Your task to perform on an android device: What is the capital of England? Image 0: 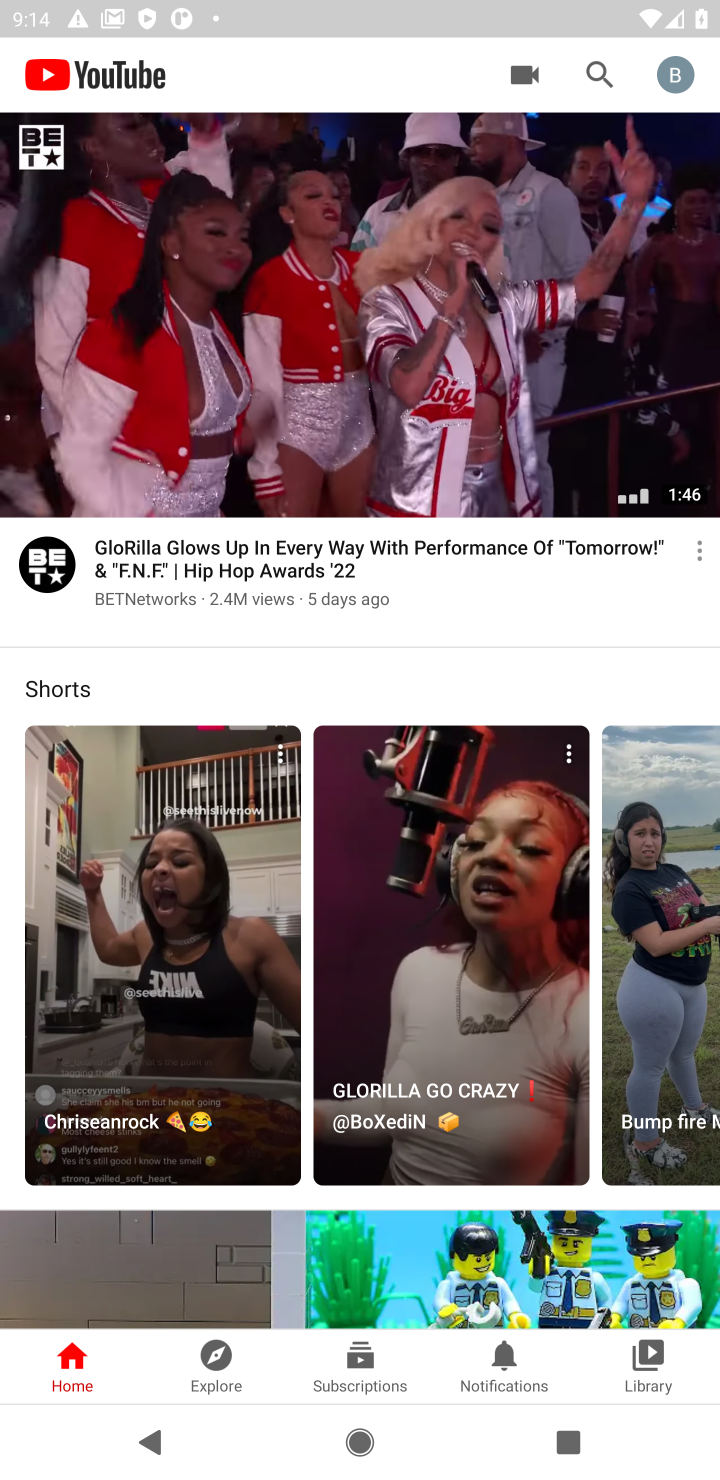
Step 0: press home button
Your task to perform on an android device: What is the capital of England? Image 1: 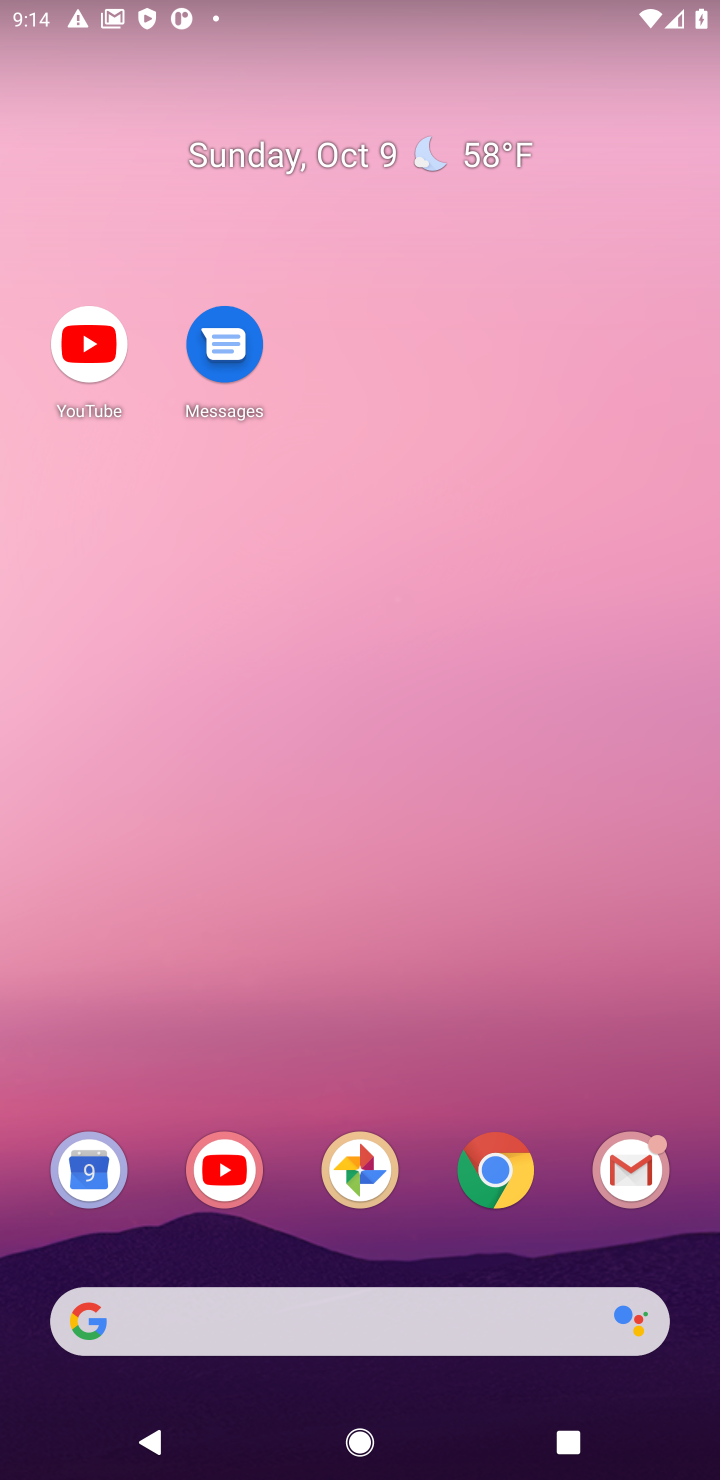
Step 1: click (410, 1314)
Your task to perform on an android device: What is the capital of England? Image 2: 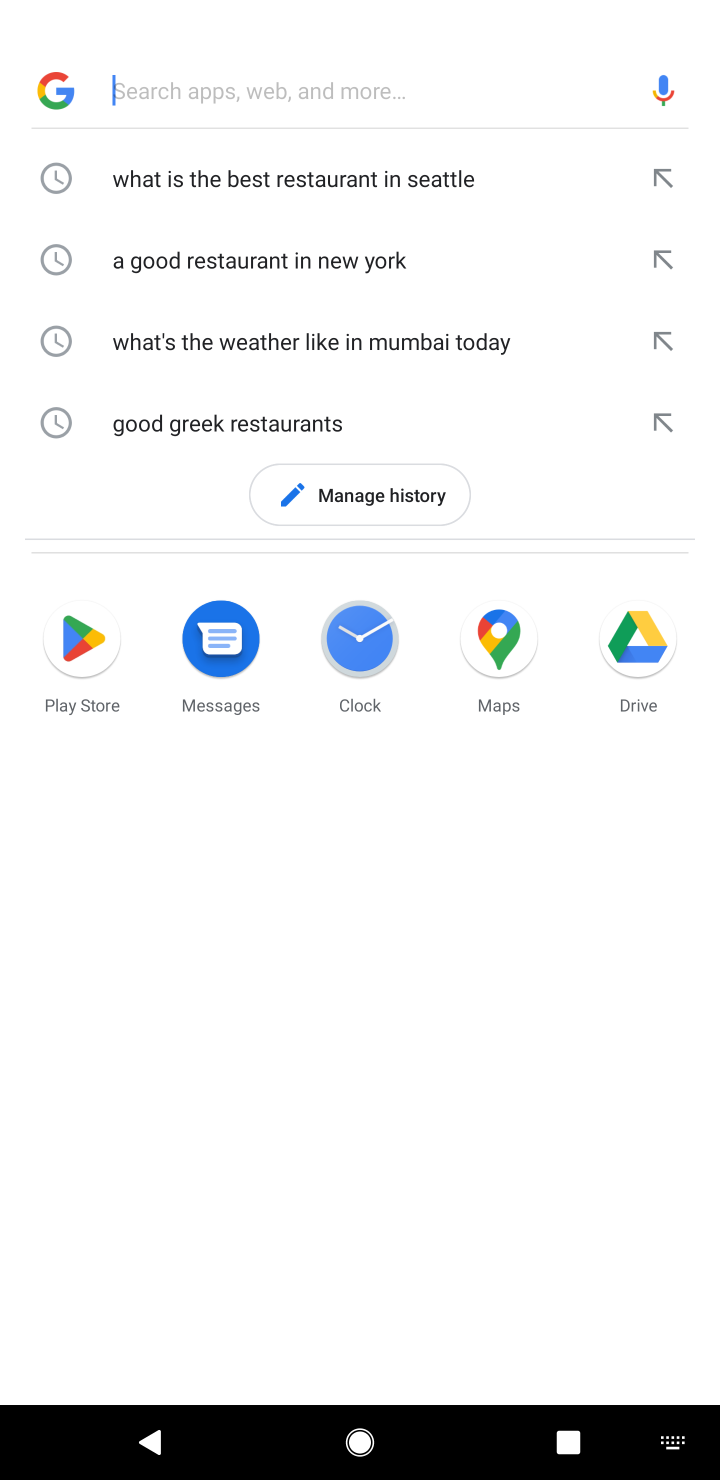
Step 2: type "What is the capital of England?"
Your task to perform on an android device: What is the capital of England? Image 3: 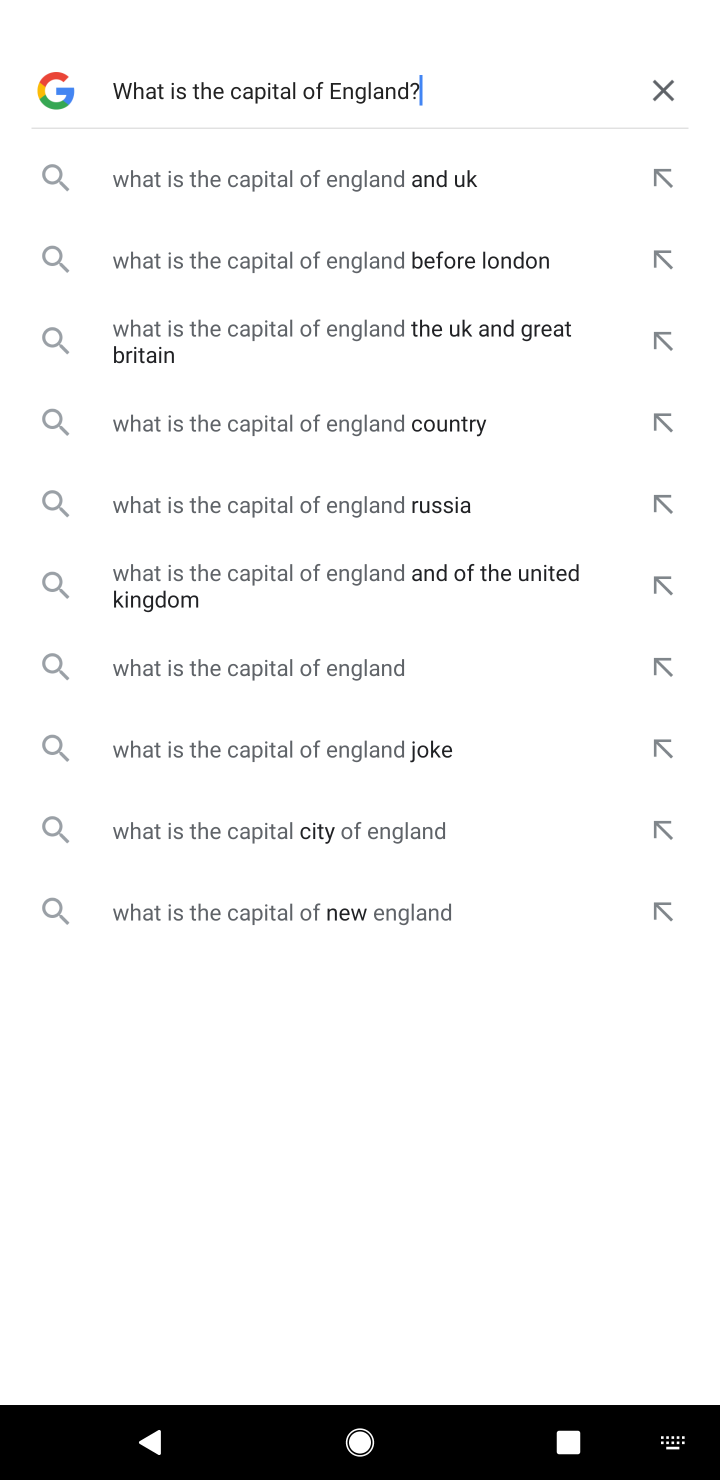
Step 3: click (471, 430)
Your task to perform on an android device: What is the capital of England? Image 4: 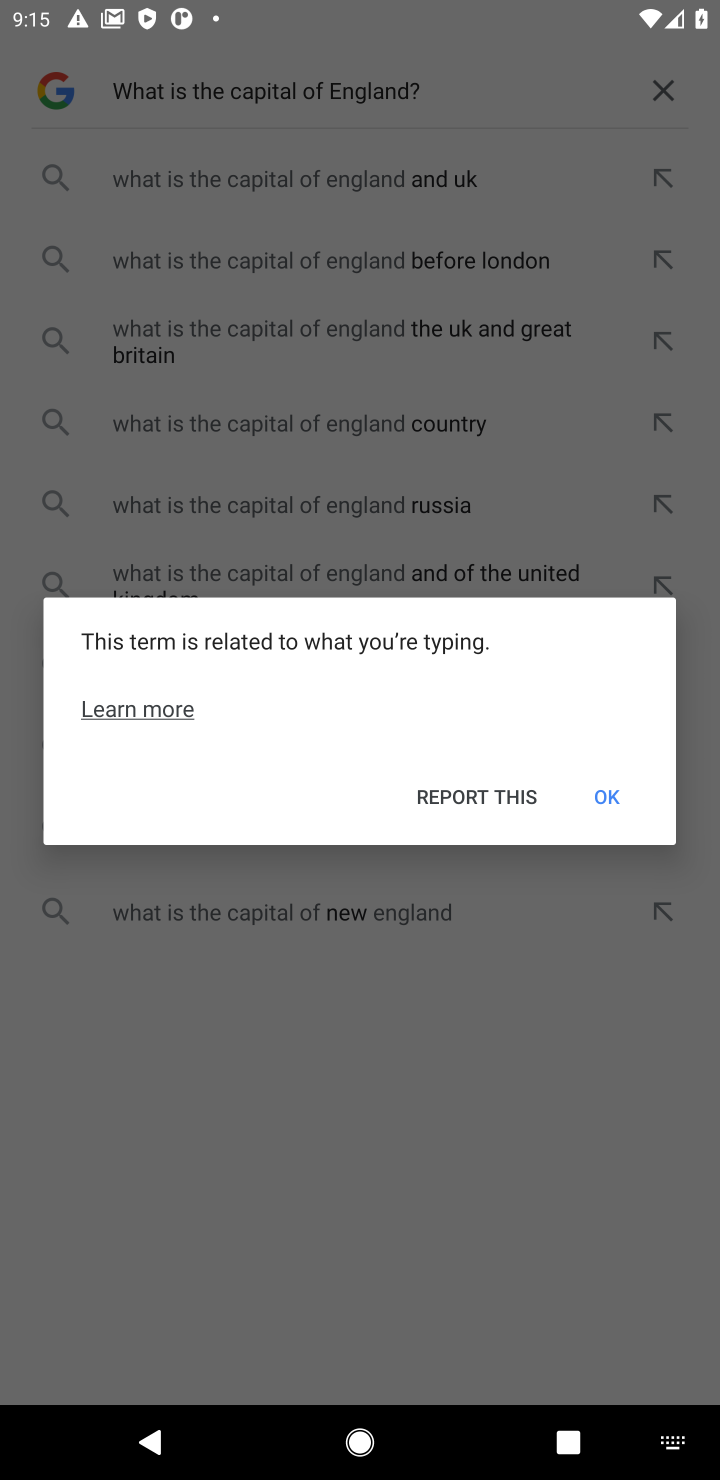
Step 4: click (605, 796)
Your task to perform on an android device: What is the capital of England? Image 5: 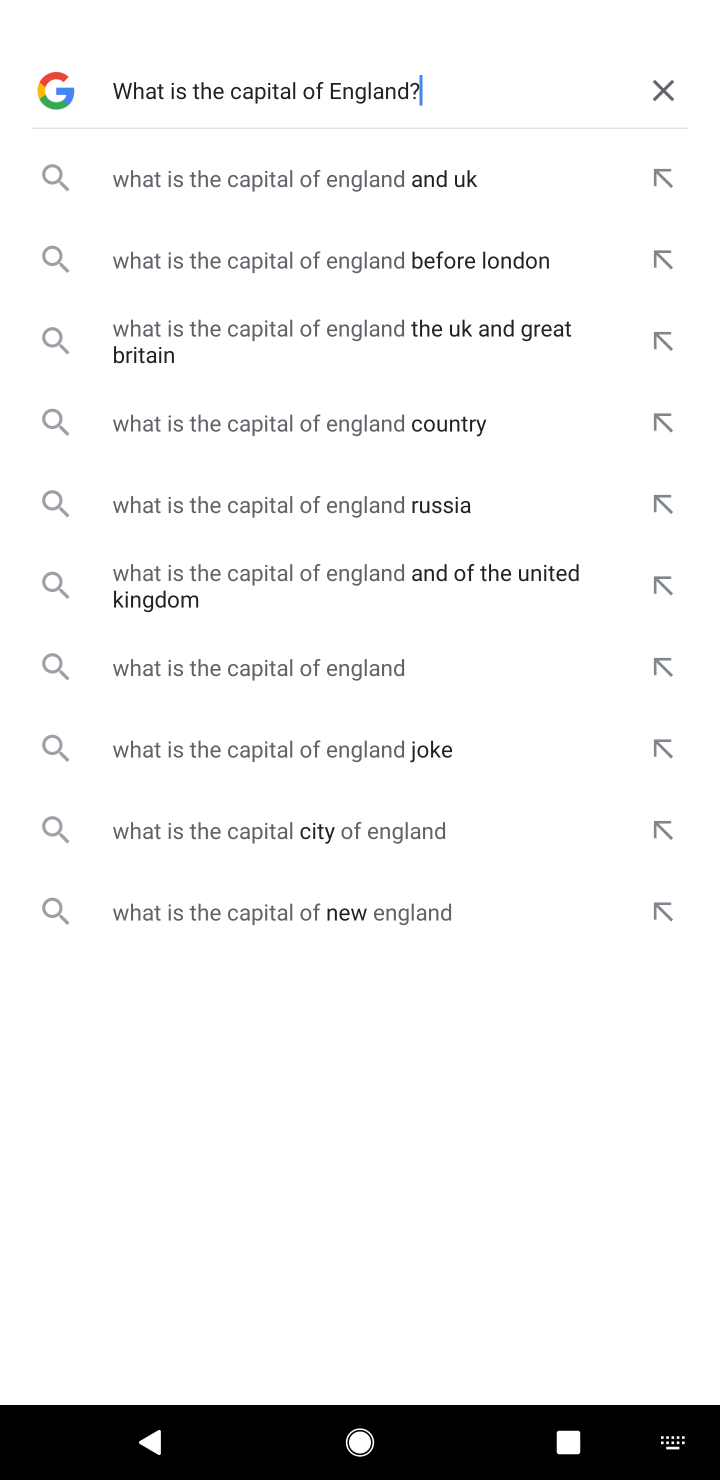
Step 5: click (403, 404)
Your task to perform on an android device: What is the capital of England? Image 6: 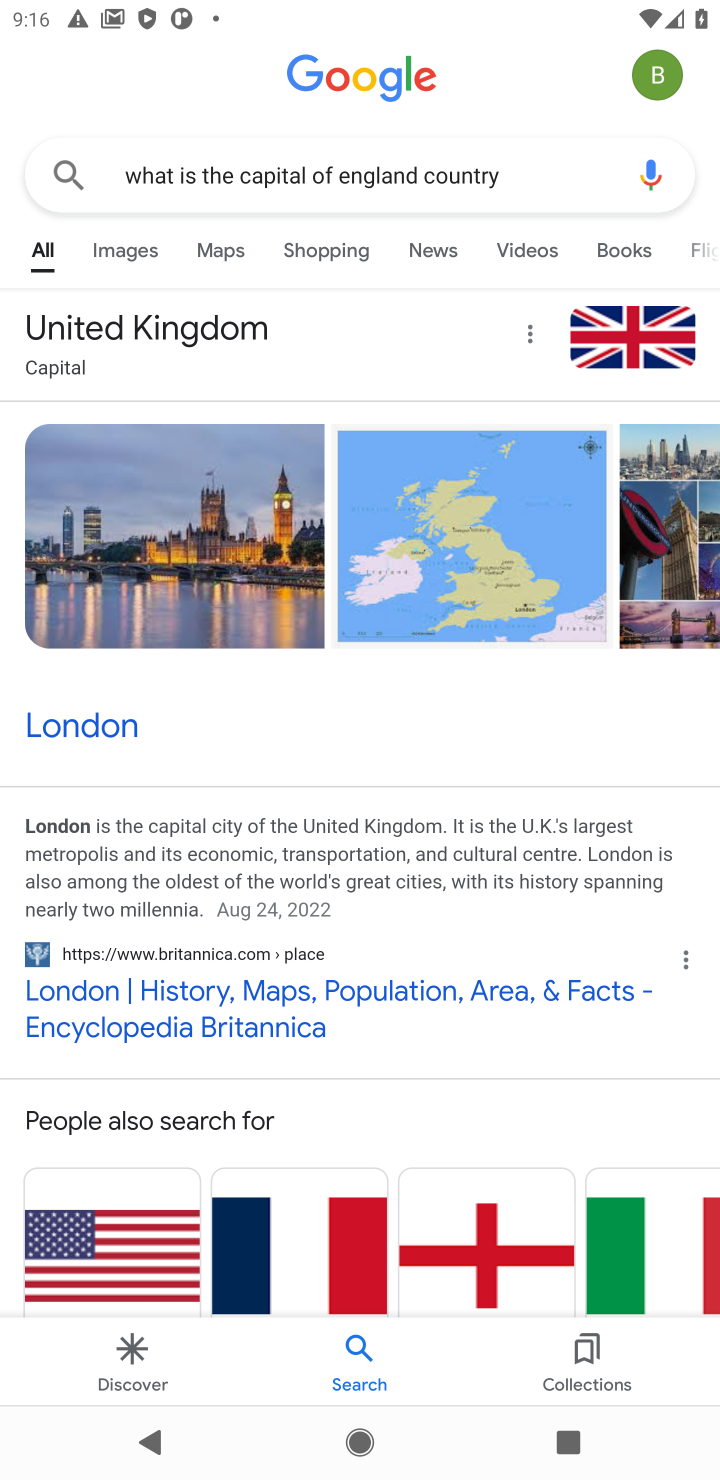
Step 6: task complete